Your task to perform on an android device: check battery use Image 0: 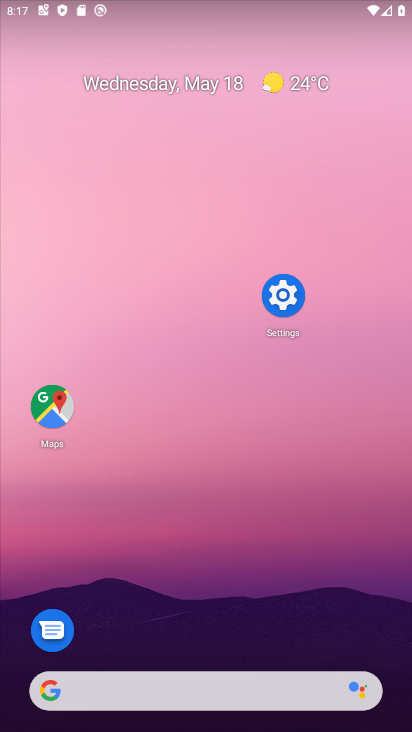
Step 0: press home button
Your task to perform on an android device: check battery use Image 1: 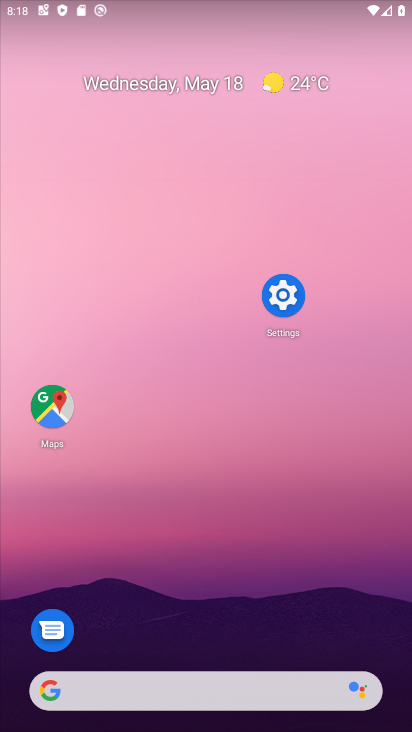
Step 1: click (288, 297)
Your task to perform on an android device: check battery use Image 2: 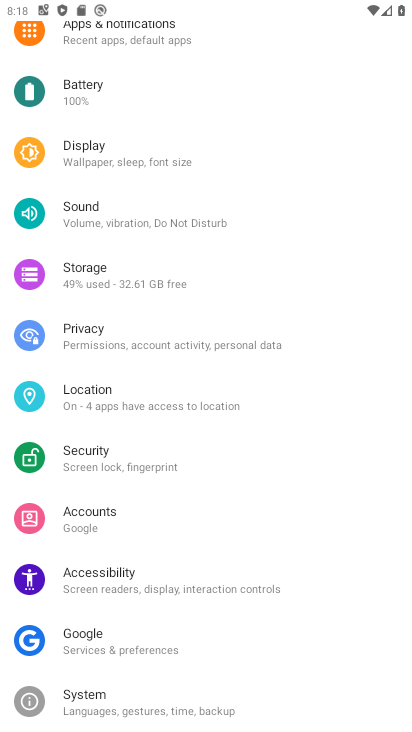
Step 2: click (281, 298)
Your task to perform on an android device: check battery use Image 3: 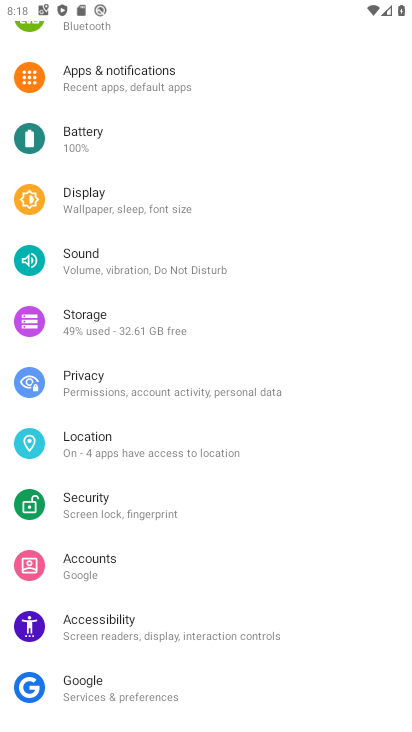
Step 3: click (281, 298)
Your task to perform on an android device: check battery use Image 4: 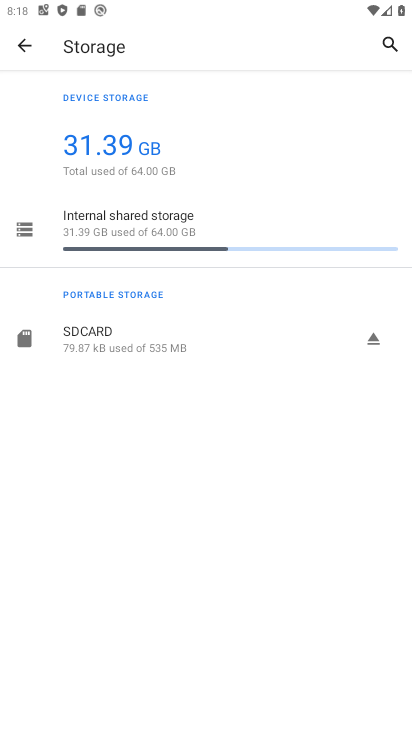
Step 4: click (9, 51)
Your task to perform on an android device: check battery use Image 5: 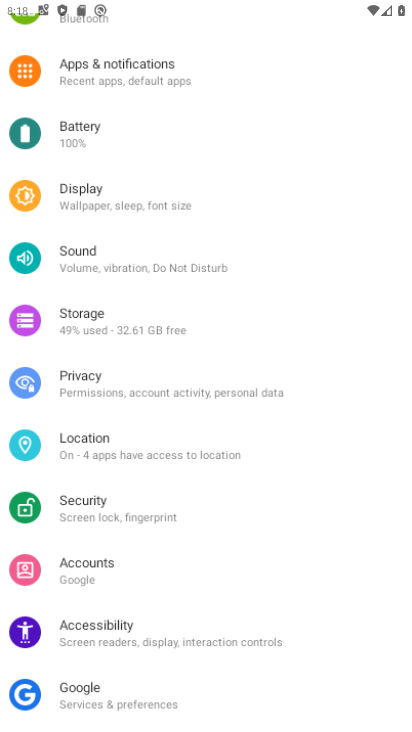
Step 5: click (17, 46)
Your task to perform on an android device: check battery use Image 6: 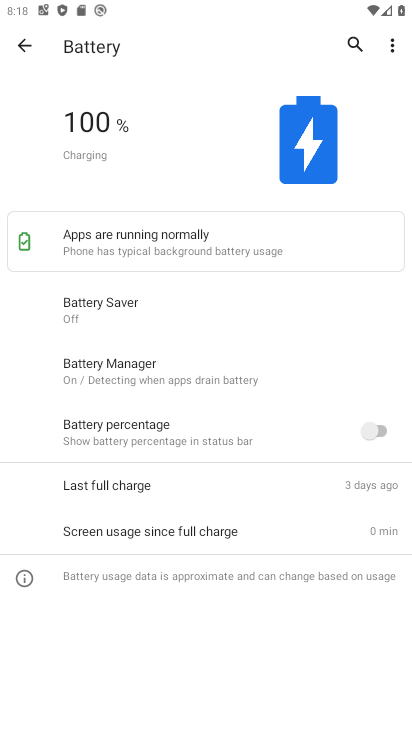
Step 6: click (397, 44)
Your task to perform on an android device: check battery use Image 7: 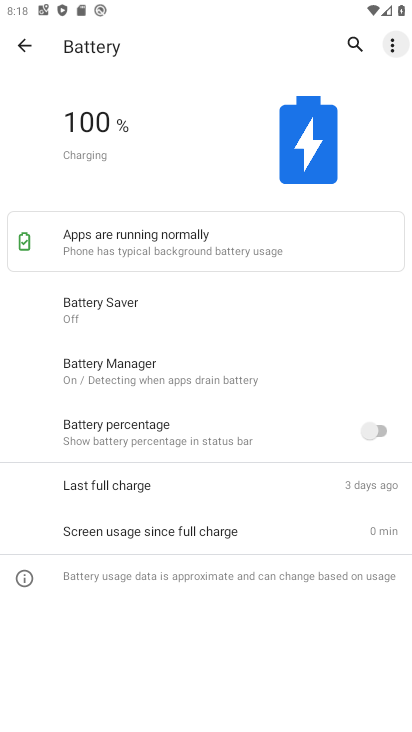
Step 7: click (394, 43)
Your task to perform on an android device: check battery use Image 8: 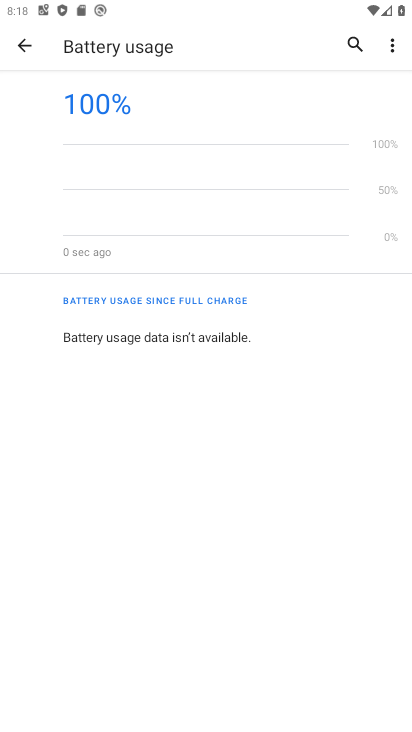
Step 8: task complete